Your task to perform on an android device: set the stopwatch Image 0: 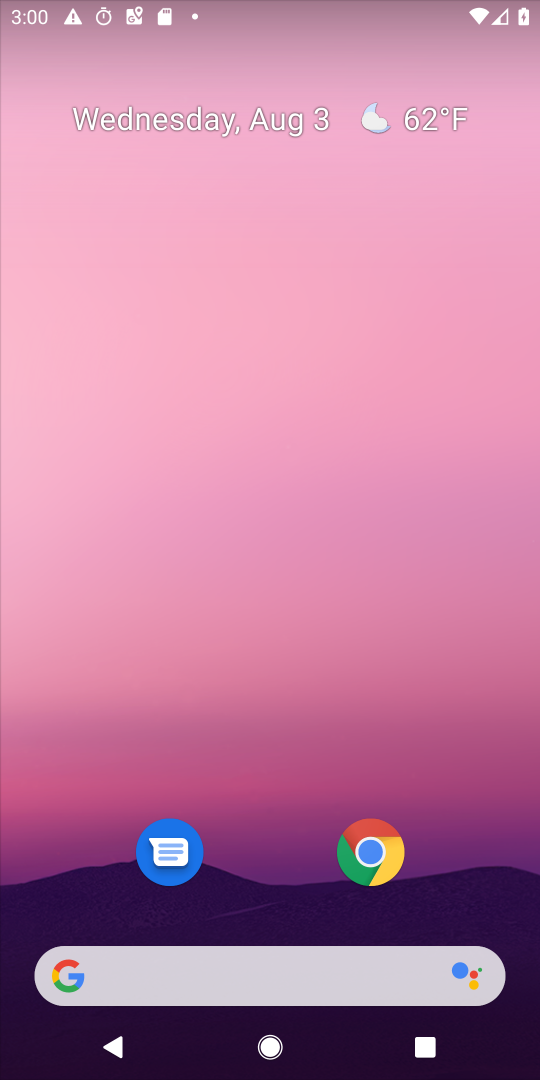
Step 0: drag from (493, 886) to (392, 318)
Your task to perform on an android device: set the stopwatch Image 1: 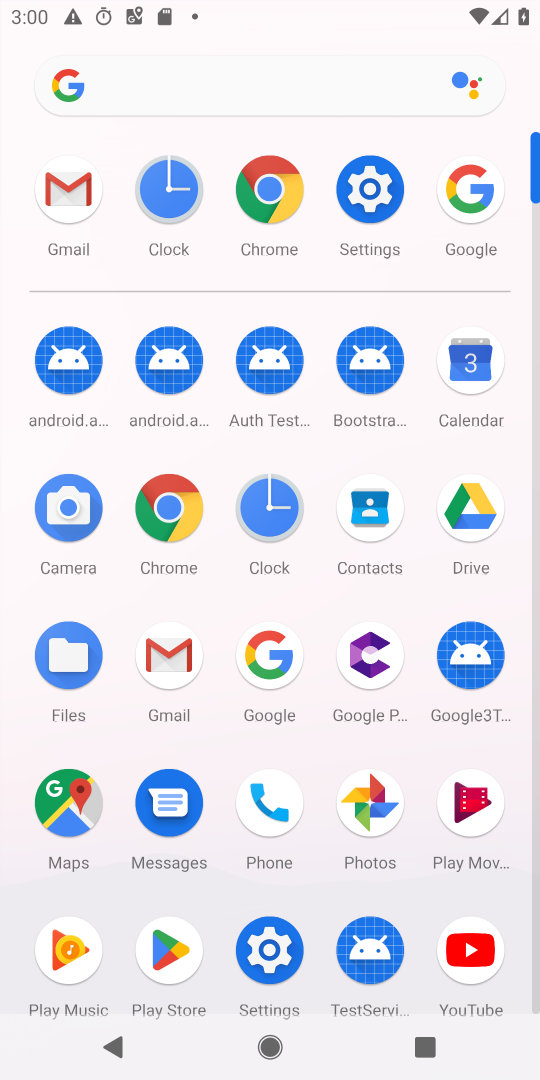
Step 1: click (267, 517)
Your task to perform on an android device: set the stopwatch Image 2: 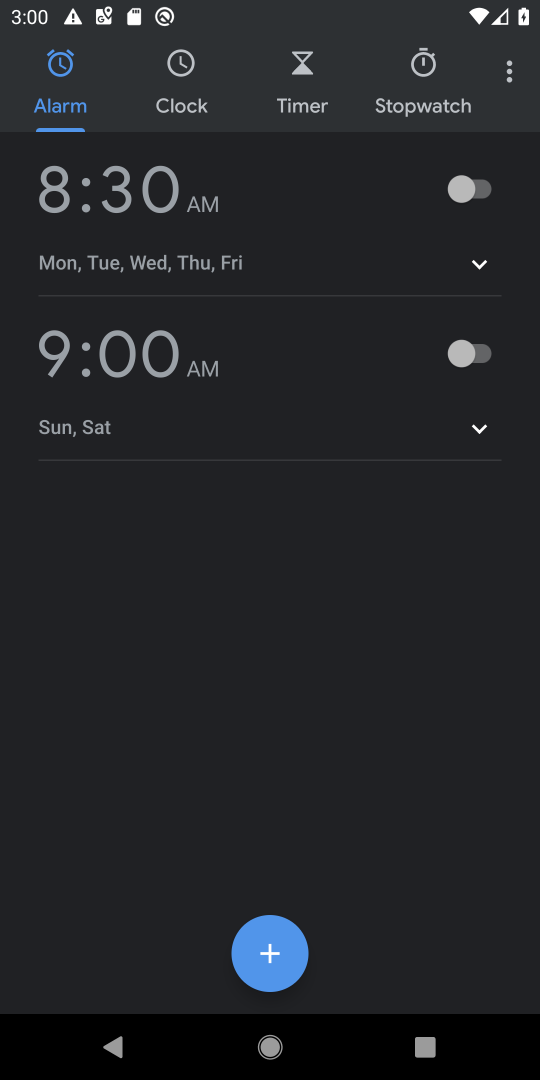
Step 2: click (434, 64)
Your task to perform on an android device: set the stopwatch Image 3: 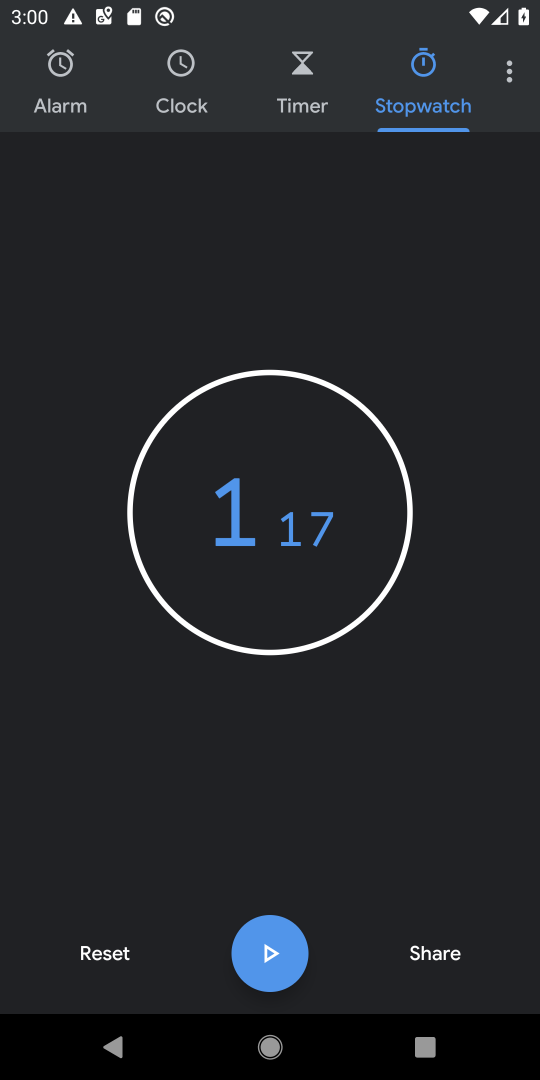
Step 3: task complete